Your task to perform on an android device: change notifications settings Image 0: 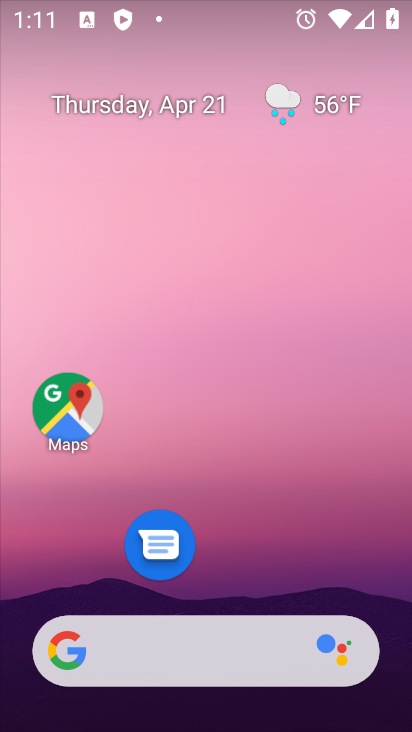
Step 0: drag from (221, 519) to (234, 198)
Your task to perform on an android device: change notifications settings Image 1: 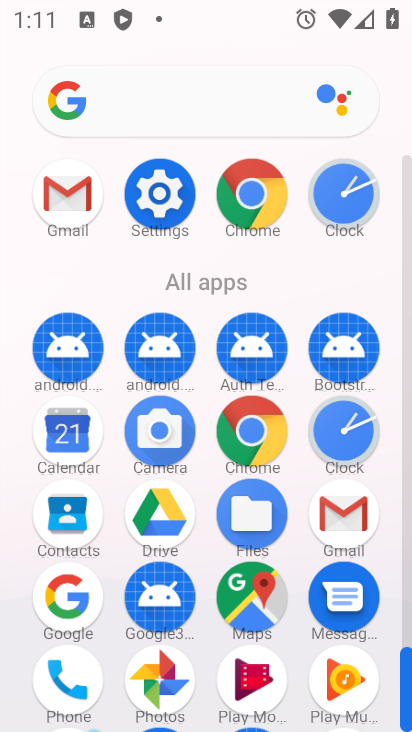
Step 1: click (180, 194)
Your task to perform on an android device: change notifications settings Image 2: 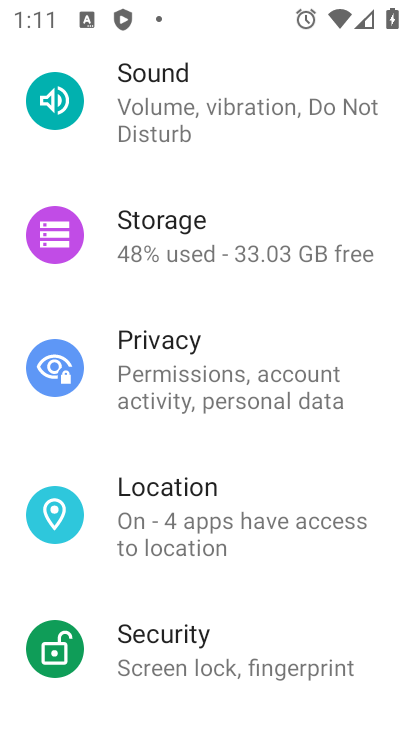
Step 2: drag from (196, 426) to (217, 637)
Your task to perform on an android device: change notifications settings Image 3: 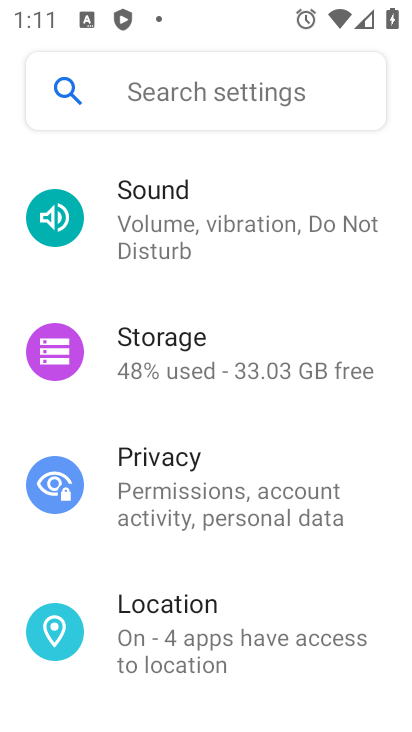
Step 3: drag from (211, 320) to (229, 627)
Your task to perform on an android device: change notifications settings Image 4: 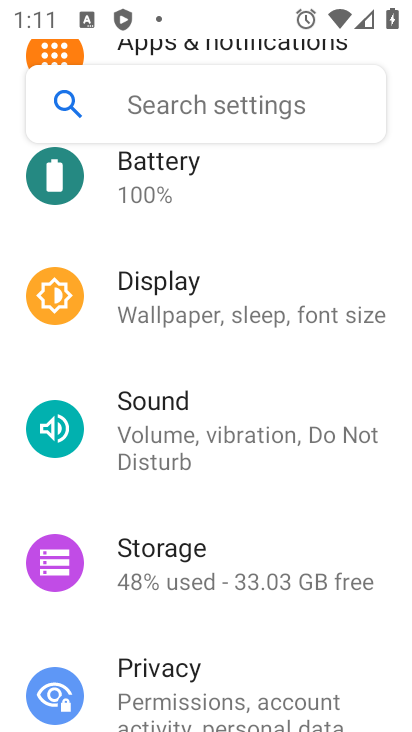
Step 4: drag from (236, 303) to (214, 644)
Your task to perform on an android device: change notifications settings Image 5: 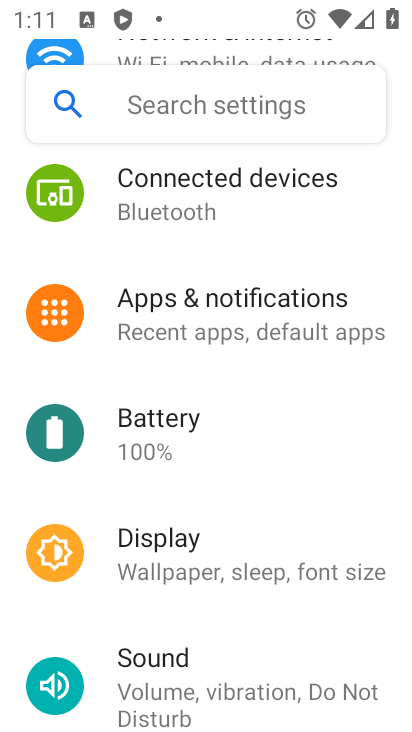
Step 5: click (267, 324)
Your task to perform on an android device: change notifications settings Image 6: 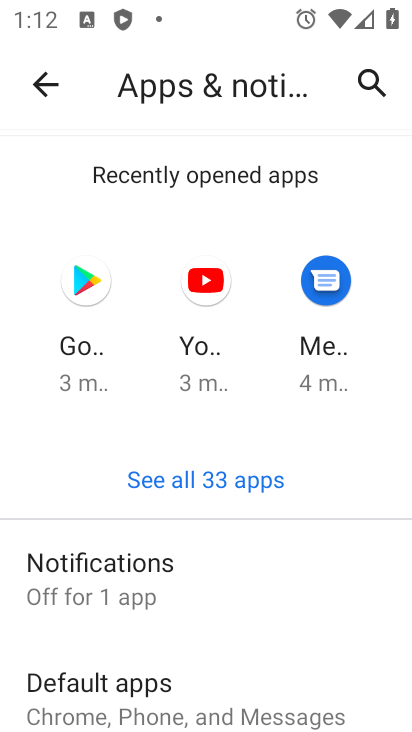
Step 6: click (215, 586)
Your task to perform on an android device: change notifications settings Image 7: 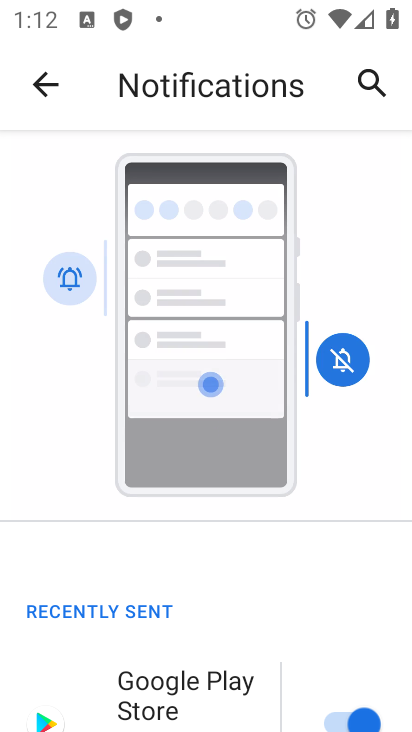
Step 7: drag from (235, 605) to (275, 218)
Your task to perform on an android device: change notifications settings Image 8: 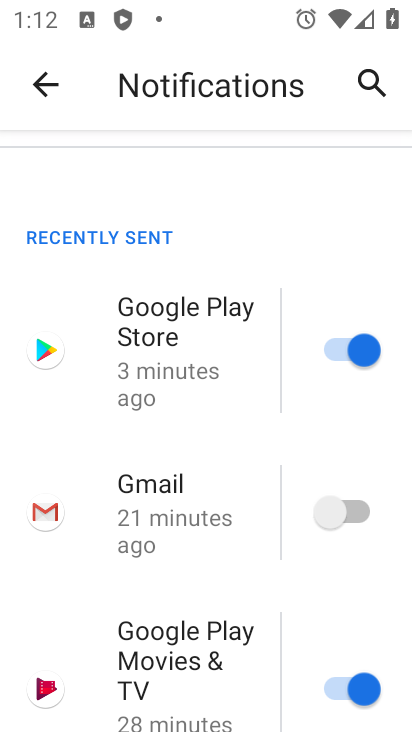
Step 8: click (329, 355)
Your task to perform on an android device: change notifications settings Image 9: 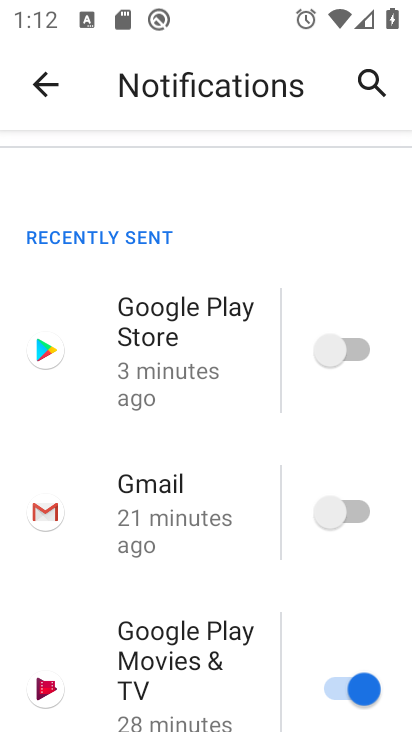
Step 9: task complete